Your task to perform on an android device: Open calendar and show me the first week of next month Image 0: 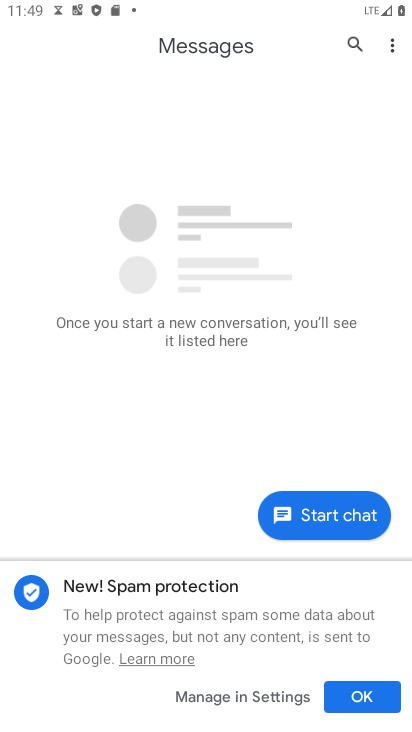
Step 0: press home button
Your task to perform on an android device: Open calendar and show me the first week of next month Image 1: 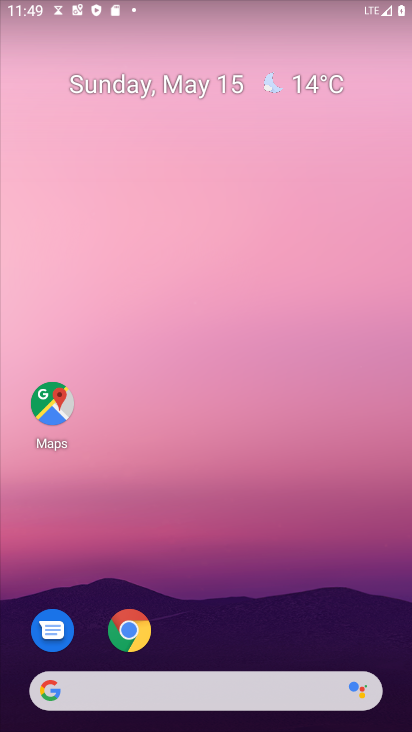
Step 1: drag from (3, 670) to (217, 130)
Your task to perform on an android device: Open calendar and show me the first week of next month Image 2: 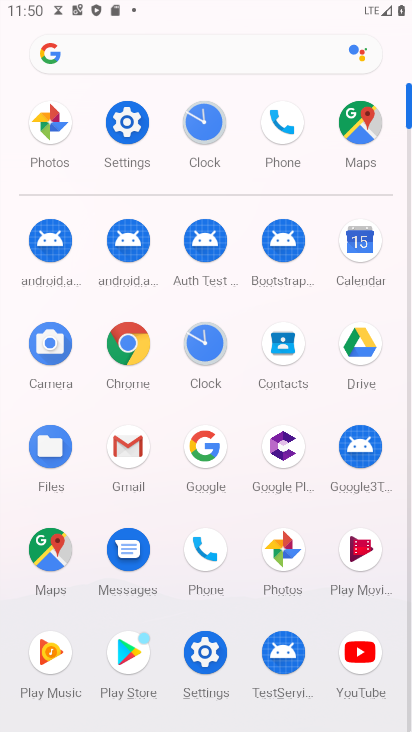
Step 2: click (348, 250)
Your task to perform on an android device: Open calendar and show me the first week of next month Image 3: 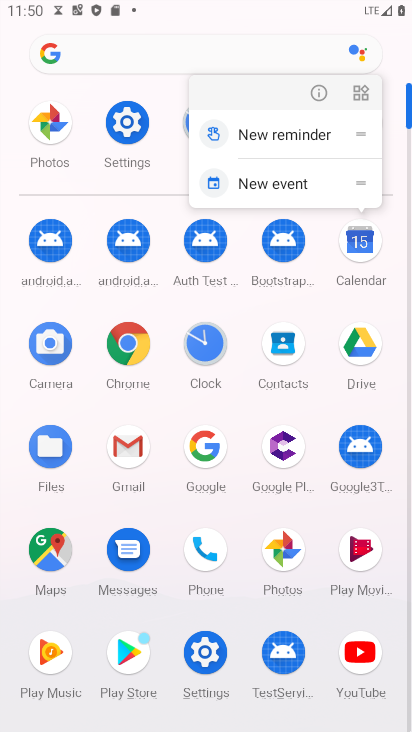
Step 3: click (345, 250)
Your task to perform on an android device: Open calendar and show me the first week of next month Image 4: 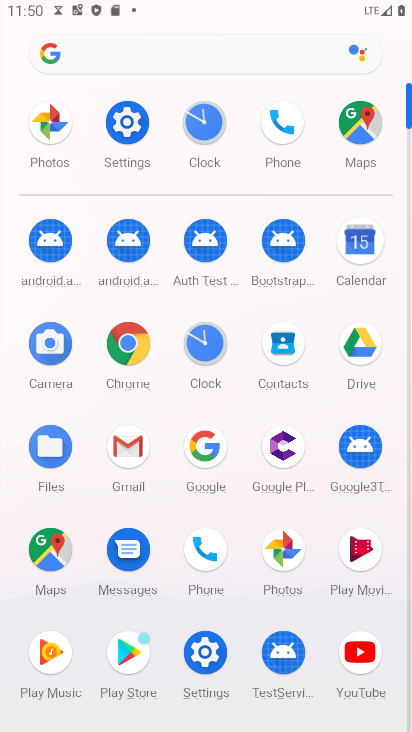
Step 4: click (361, 243)
Your task to perform on an android device: Open calendar and show me the first week of next month Image 5: 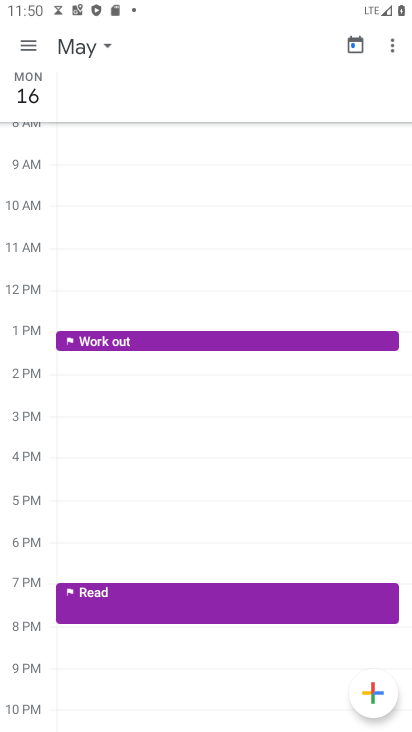
Step 5: click (111, 45)
Your task to perform on an android device: Open calendar and show me the first week of next month Image 6: 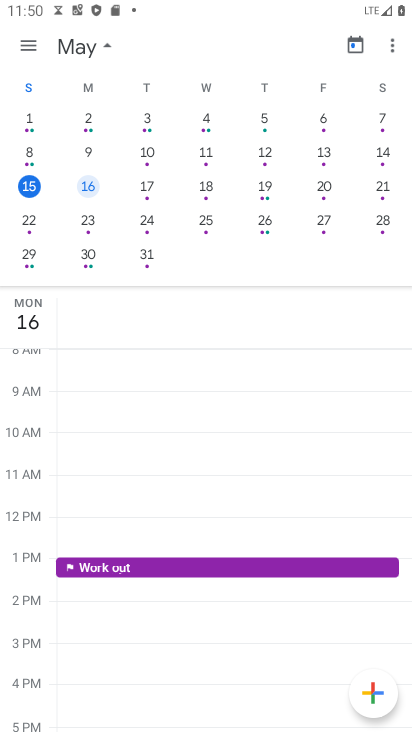
Step 6: drag from (350, 169) to (7, 184)
Your task to perform on an android device: Open calendar and show me the first week of next month Image 7: 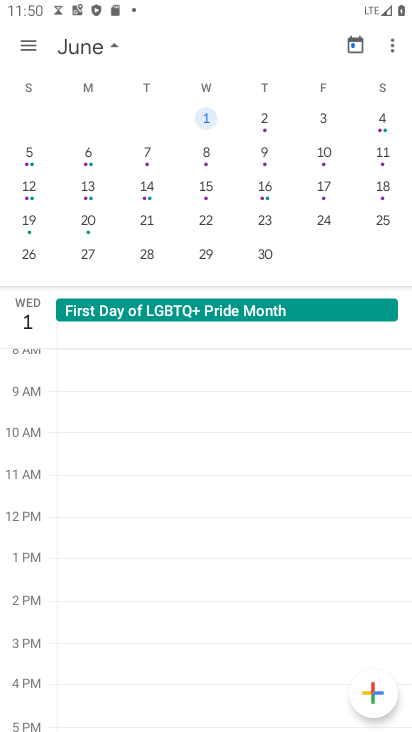
Step 7: click (282, 123)
Your task to perform on an android device: Open calendar and show me the first week of next month Image 8: 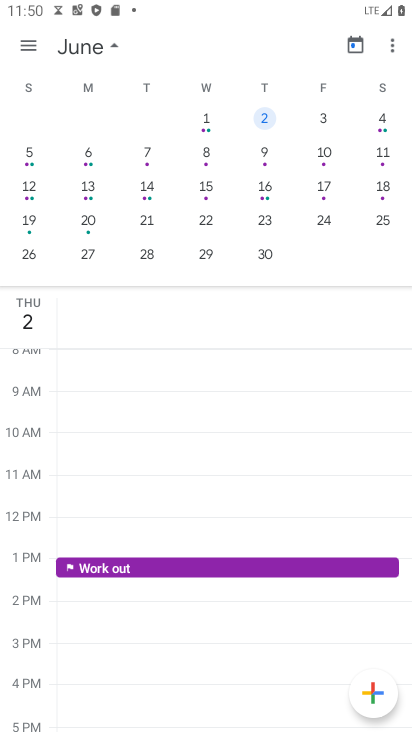
Step 8: click (325, 115)
Your task to perform on an android device: Open calendar and show me the first week of next month Image 9: 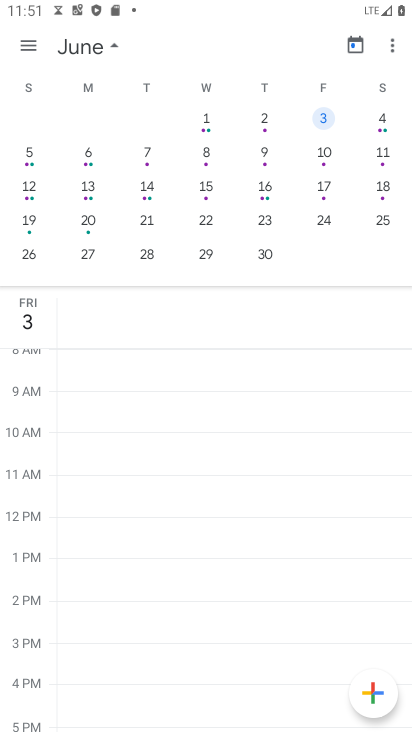
Step 9: task complete